Your task to perform on an android device: Check the weather Image 0: 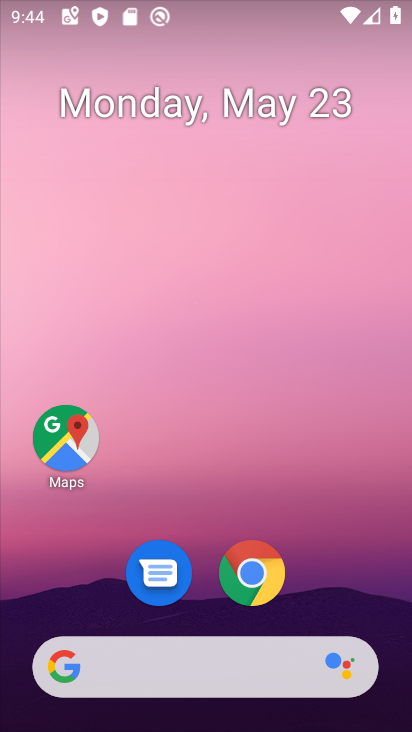
Step 0: click (179, 669)
Your task to perform on an android device: Check the weather Image 1: 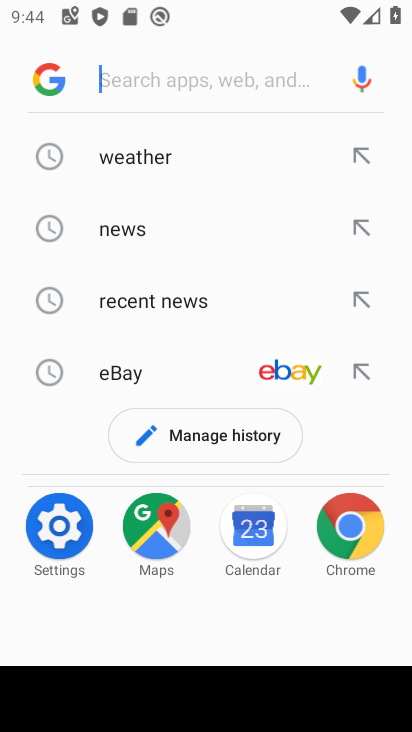
Step 1: click (159, 168)
Your task to perform on an android device: Check the weather Image 2: 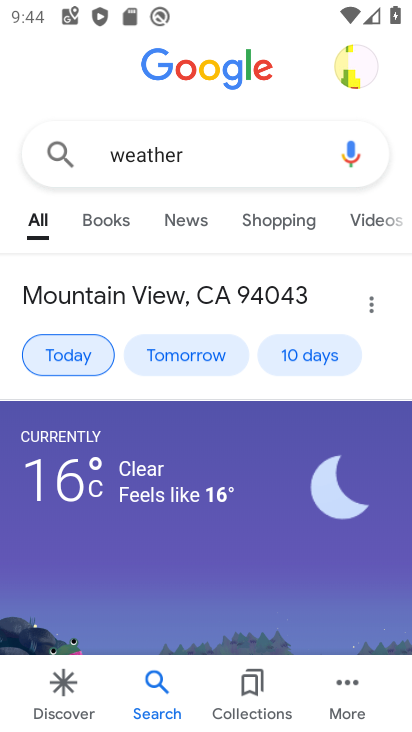
Step 2: task complete